Your task to perform on an android device: Show me popular videos on Youtube Image 0: 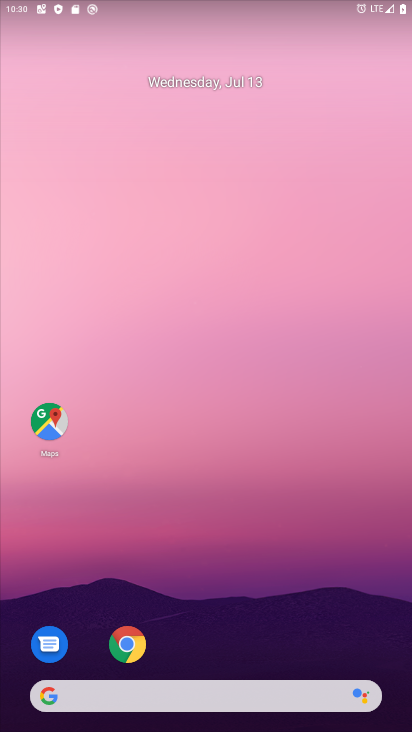
Step 0: drag from (207, 709) to (210, 258)
Your task to perform on an android device: Show me popular videos on Youtube Image 1: 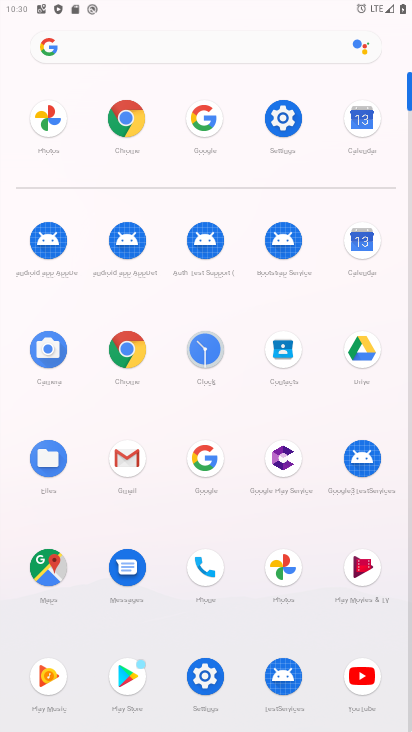
Step 1: click (364, 674)
Your task to perform on an android device: Show me popular videos on Youtube Image 2: 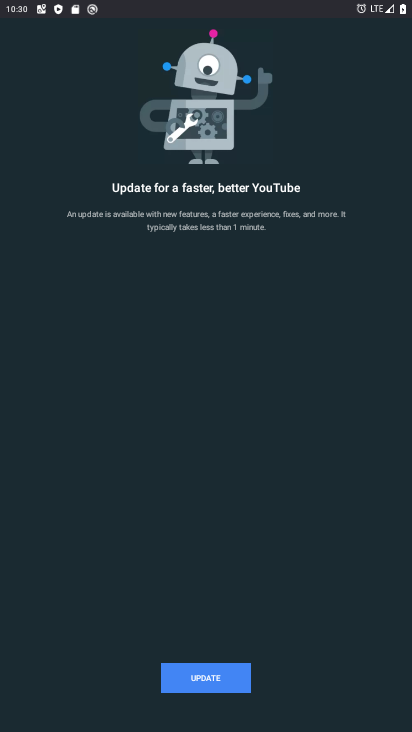
Step 2: task complete